Your task to perform on an android device: Open the Play Movies app and select the watchlist tab. Image 0: 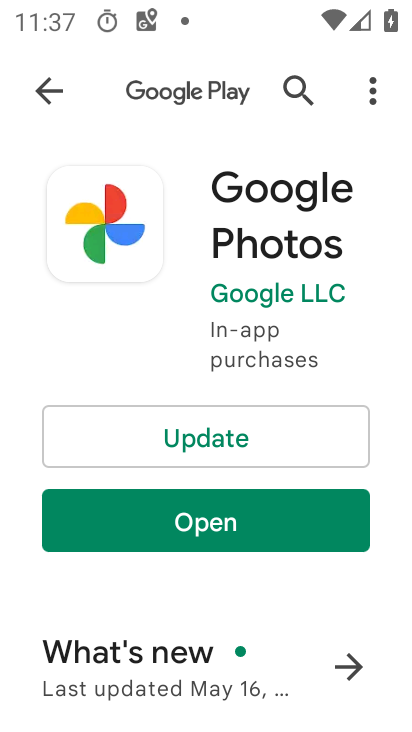
Step 0: press home button
Your task to perform on an android device: Open the Play Movies app and select the watchlist tab. Image 1: 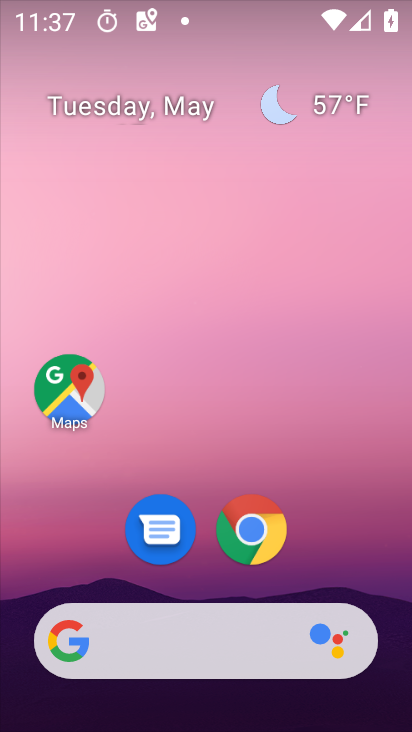
Step 1: drag from (194, 586) to (188, 115)
Your task to perform on an android device: Open the Play Movies app and select the watchlist tab. Image 2: 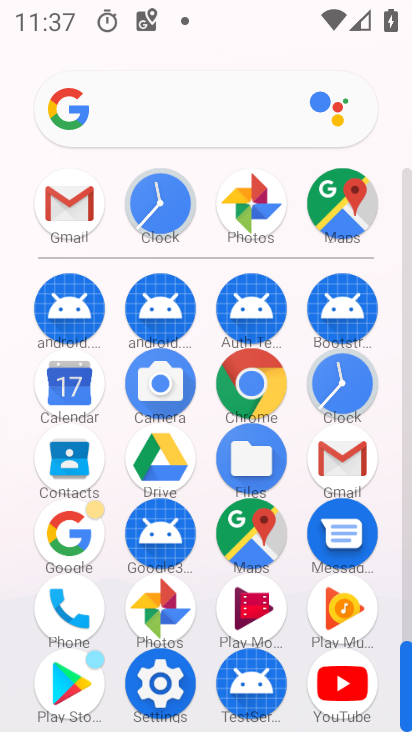
Step 2: click (267, 614)
Your task to perform on an android device: Open the Play Movies app and select the watchlist tab. Image 3: 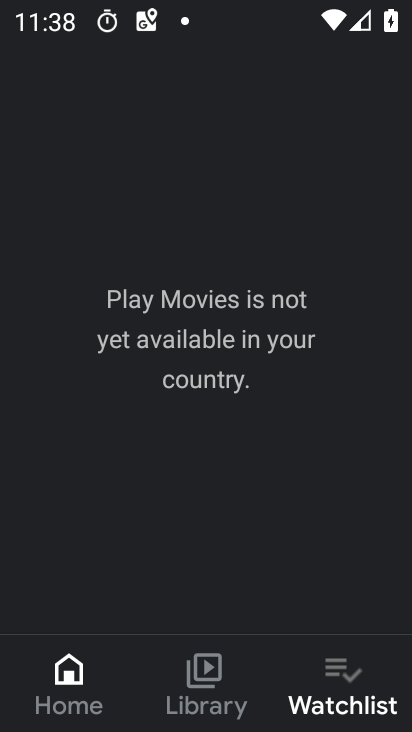
Step 3: click (325, 661)
Your task to perform on an android device: Open the Play Movies app and select the watchlist tab. Image 4: 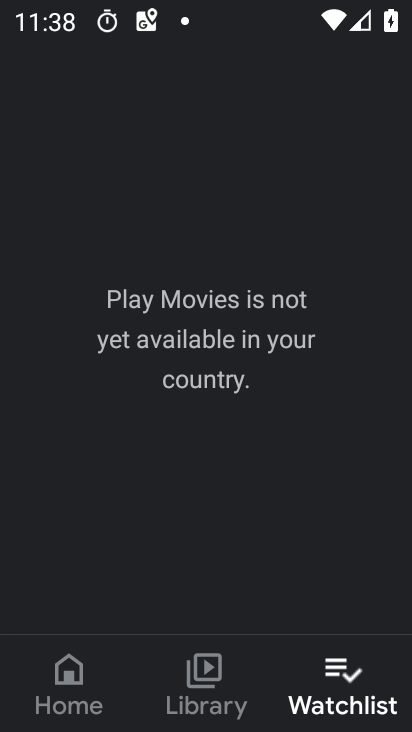
Step 4: task complete